Your task to perform on an android device: open chrome privacy settings Image 0: 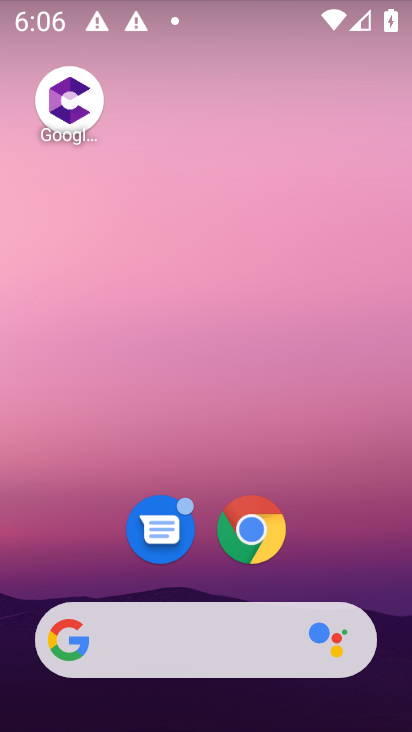
Step 0: click (242, 529)
Your task to perform on an android device: open chrome privacy settings Image 1: 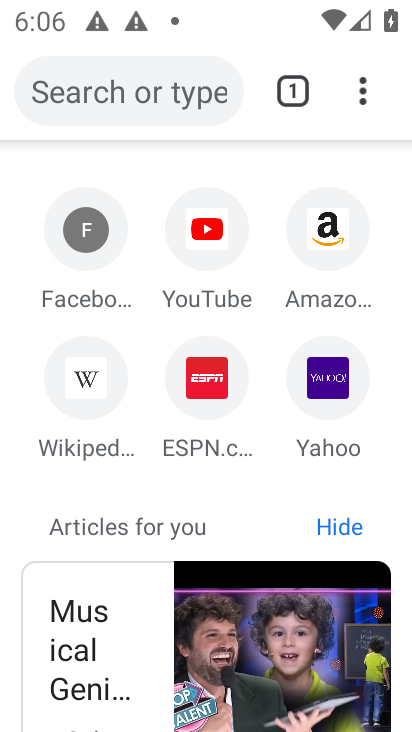
Step 1: click (364, 94)
Your task to perform on an android device: open chrome privacy settings Image 2: 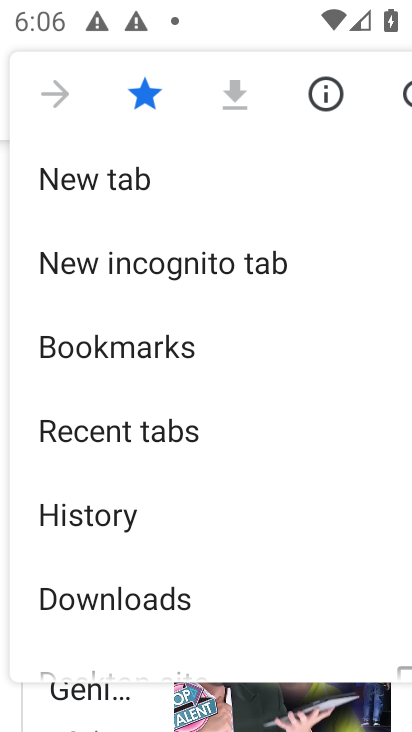
Step 2: drag from (168, 521) to (149, 111)
Your task to perform on an android device: open chrome privacy settings Image 3: 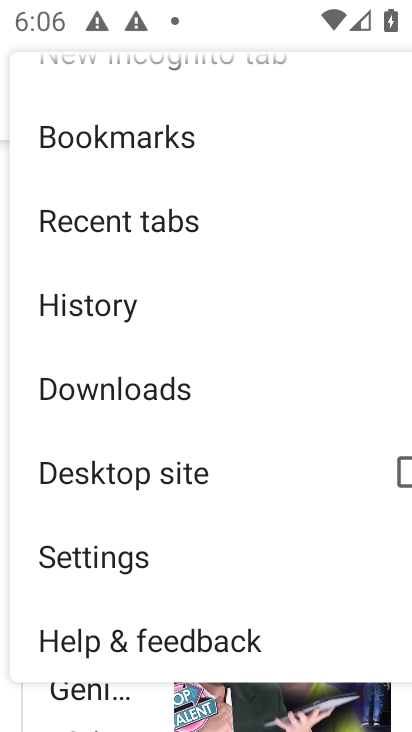
Step 3: click (128, 546)
Your task to perform on an android device: open chrome privacy settings Image 4: 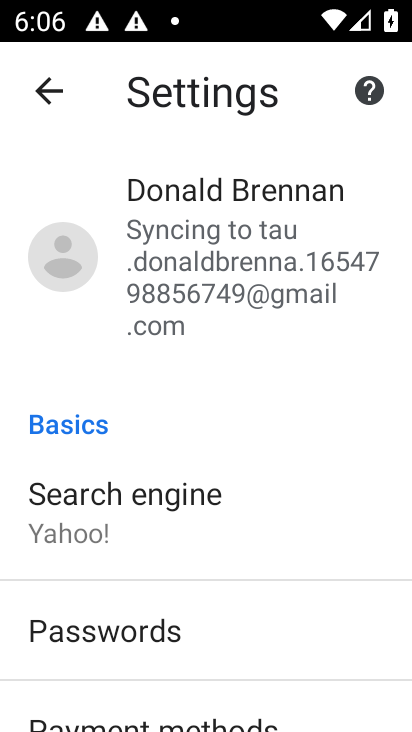
Step 4: drag from (198, 669) to (187, 236)
Your task to perform on an android device: open chrome privacy settings Image 5: 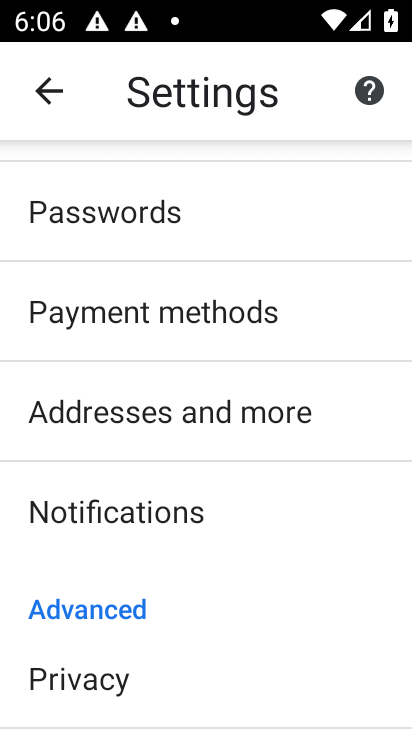
Step 5: click (91, 683)
Your task to perform on an android device: open chrome privacy settings Image 6: 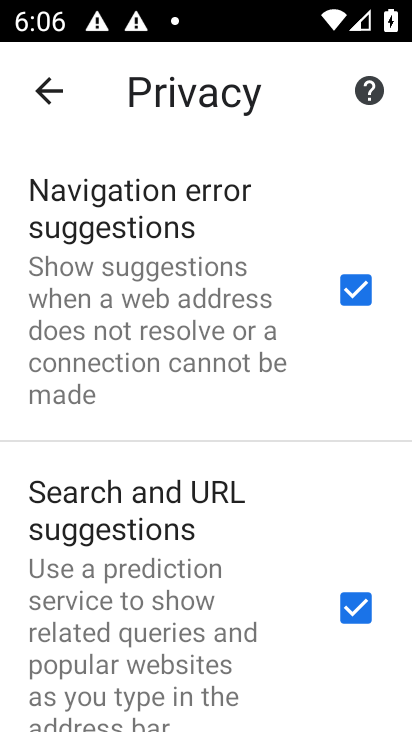
Step 6: task complete